Your task to perform on an android device: find photos in the google photos app Image 0: 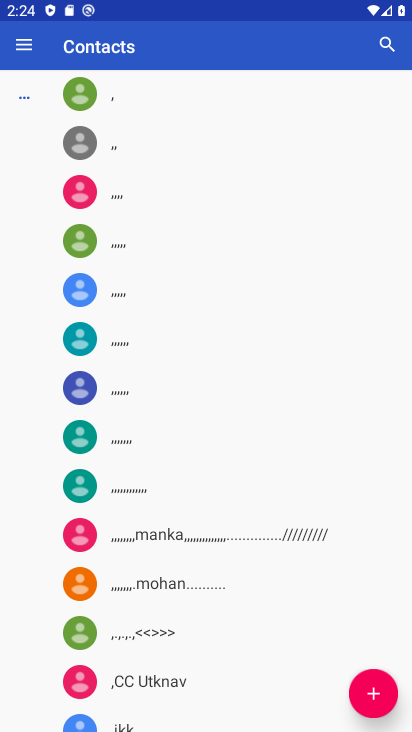
Step 0: press home button
Your task to perform on an android device: find photos in the google photos app Image 1: 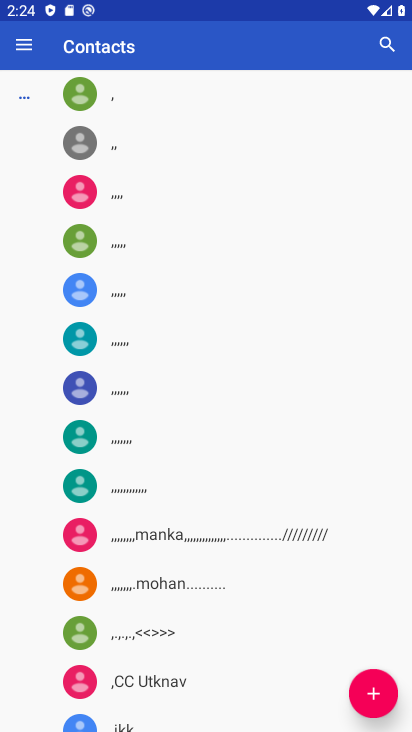
Step 1: press home button
Your task to perform on an android device: find photos in the google photos app Image 2: 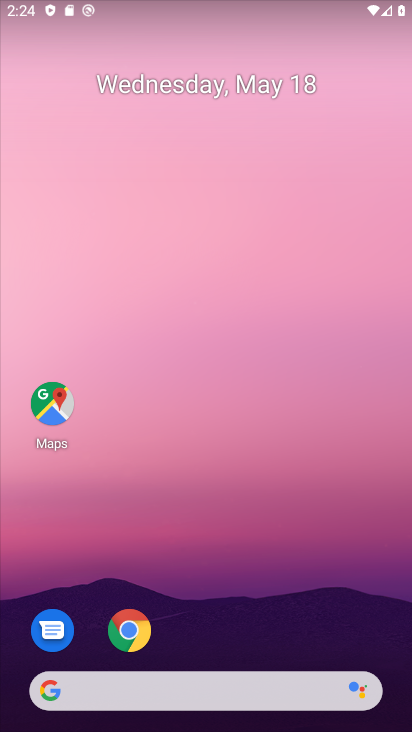
Step 2: drag from (212, 649) to (261, 93)
Your task to perform on an android device: find photos in the google photos app Image 3: 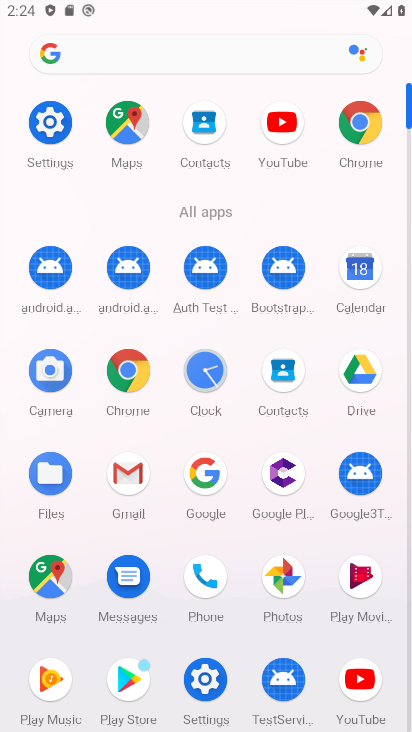
Step 3: click (281, 574)
Your task to perform on an android device: find photos in the google photos app Image 4: 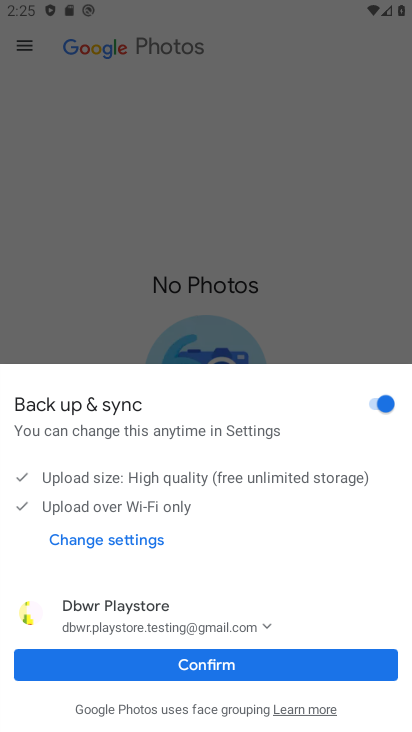
Step 4: click (207, 662)
Your task to perform on an android device: find photos in the google photos app Image 5: 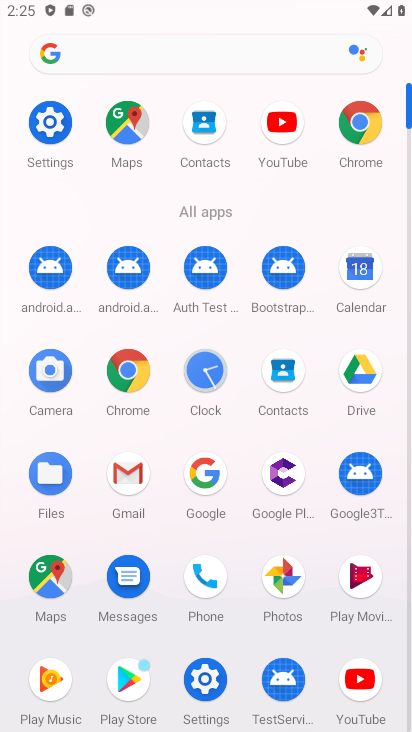
Step 5: click (276, 570)
Your task to perform on an android device: find photos in the google photos app Image 6: 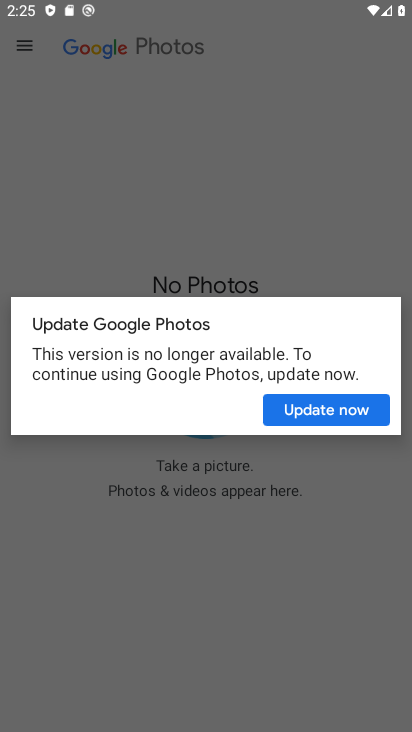
Step 6: click (332, 407)
Your task to perform on an android device: find photos in the google photos app Image 7: 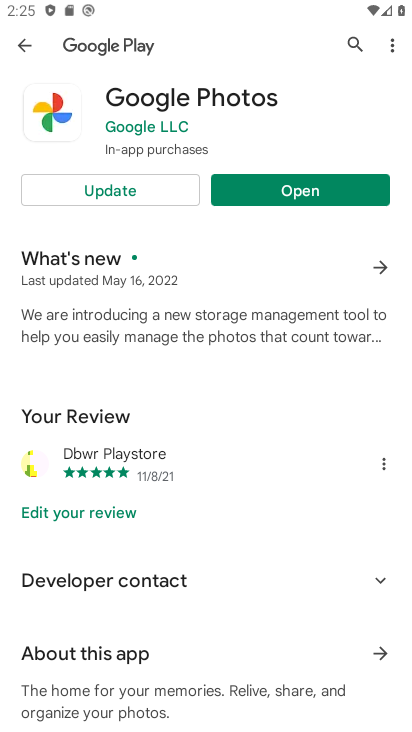
Step 7: click (106, 187)
Your task to perform on an android device: find photos in the google photos app Image 8: 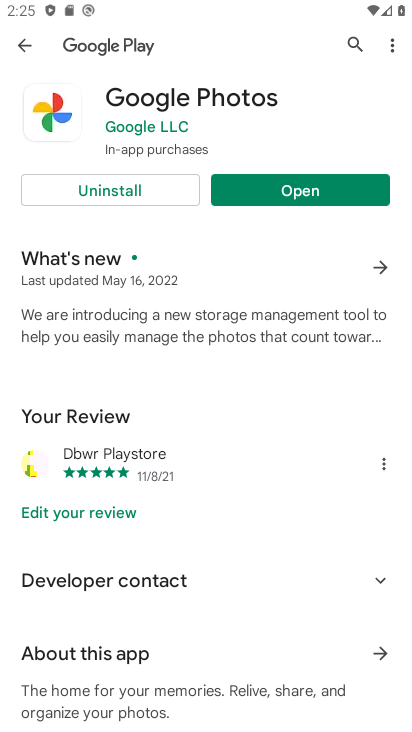
Step 8: click (308, 197)
Your task to perform on an android device: find photos in the google photos app Image 9: 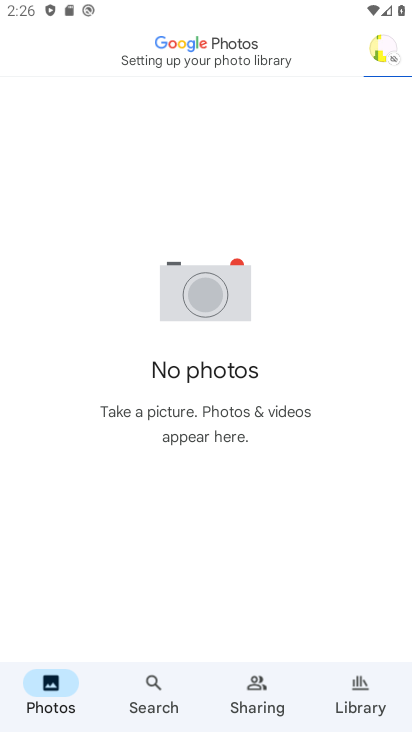
Step 9: task complete